Your task to perform on an android device: Open Google Chrome and click the shortcut for Amazon.com Image 0: 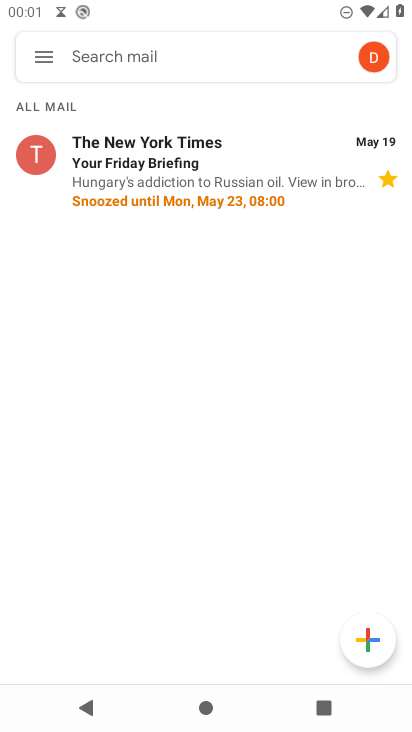
Step 0: press home button
Your task to perform on an android device: Open Google Chrome and click the shortcut for Amazon.com Image 1: 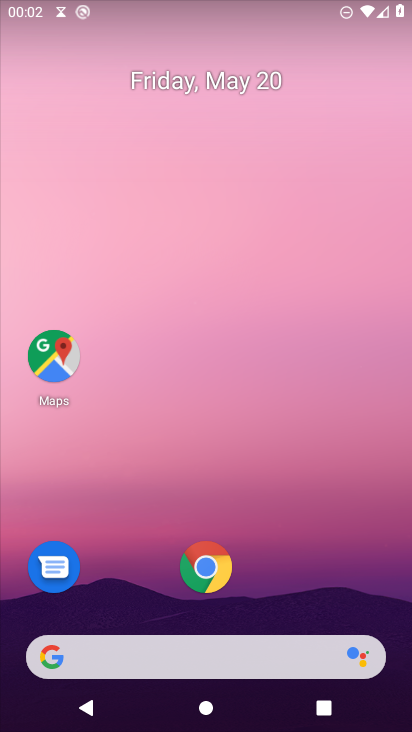
Step 1: click (204, 563)
Your task to perform on an android device: Open Google Chrome and click the shortcut for Amazon.com Image 2: 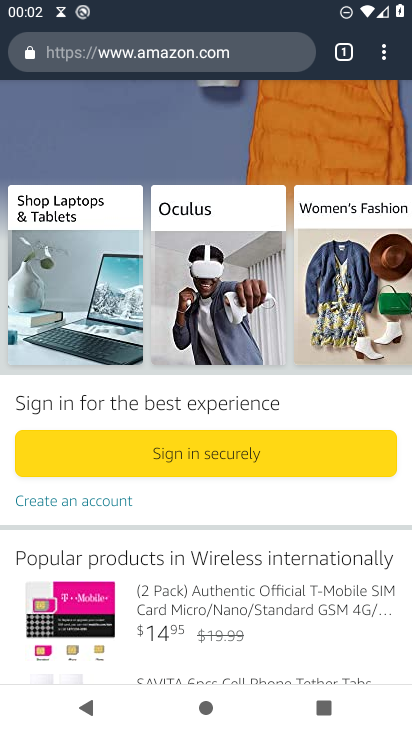
Step 2: click (343, 48)
Your task to perform on an android device: Open Google Chrome and click the shortcut for Amazon.com Image 3: 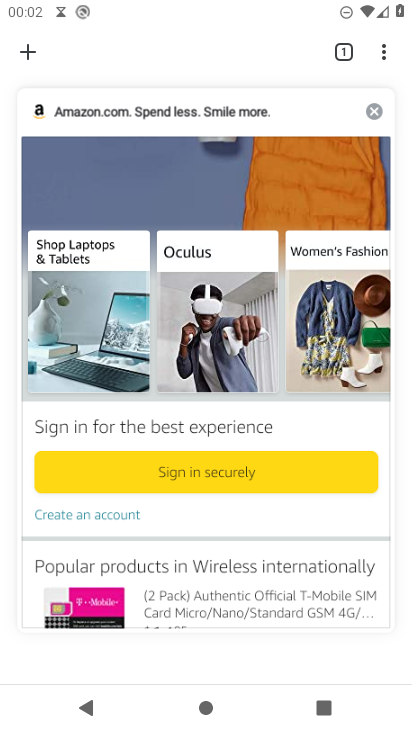
Step 3: click (128, 238)
Your task to perform on an android device: Open Google Chrome and click the shortcut for Amazon.com Image 4: 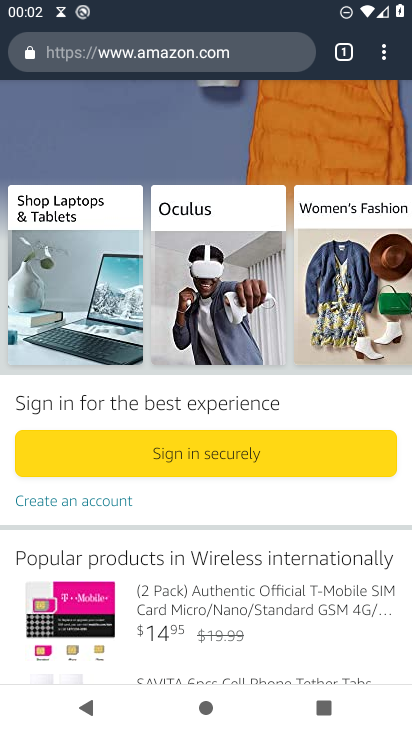
Step 4: task complete